Your task to perform on an android device: choose inbox layout in the gmail app Image 0: 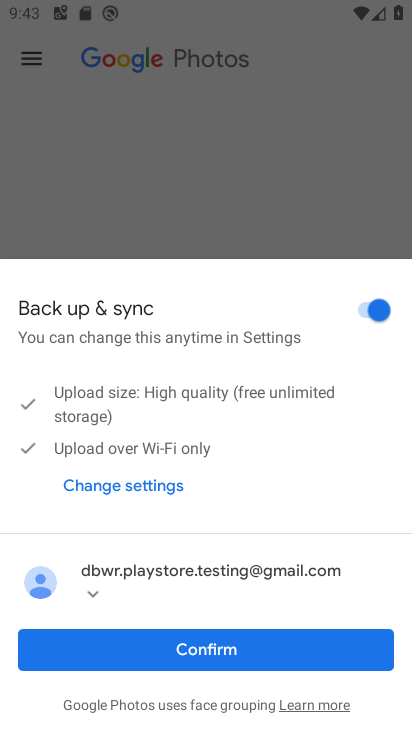
Step 0: press home button
Your task to perform on an android device: choose inbox layout in the gmail app Image 1: 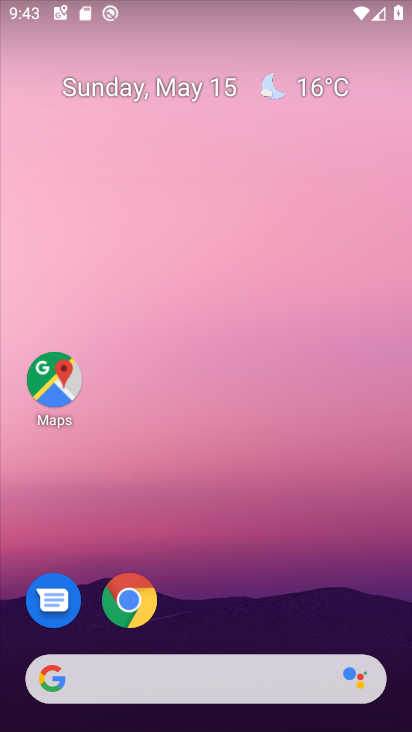
Step 1: drag from (206, 639) to (304, 56)
Your task to perform on an android device: choose inbox layout in the gmail app Image 2: 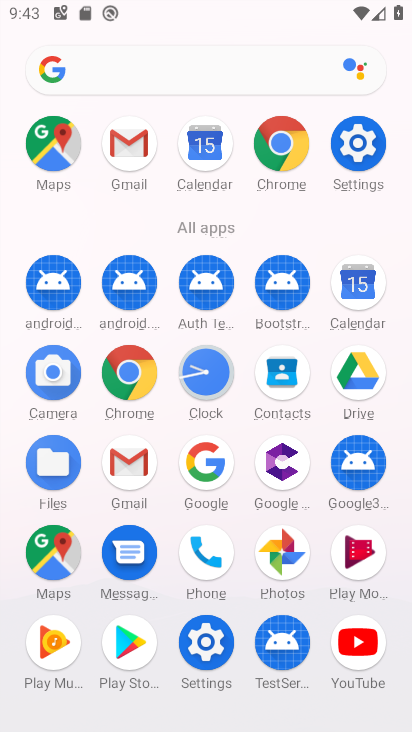
Step 2: click (137, 465)
Your task to perform on an android device: choose inbox layout in the gmail app Image 3: 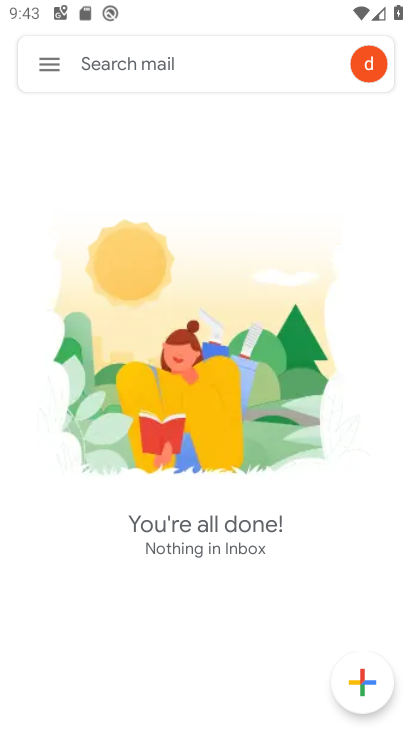
Step 3: click (47, 49)
Your task to perform on an android device: choose inbox layout in the gmail app Image 4: 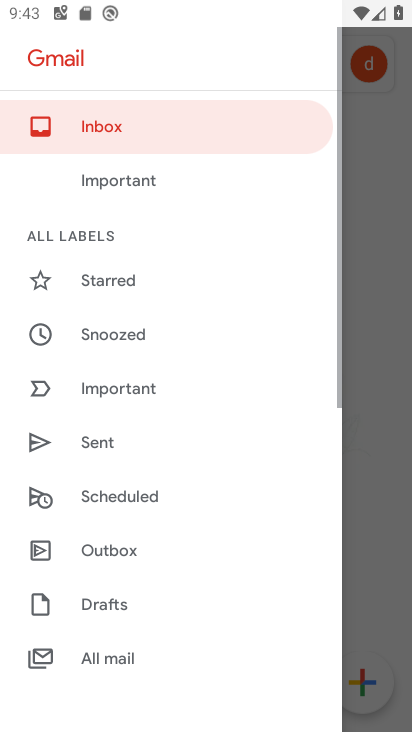
Step 4: drag from (142, 636) to (100, 6)
Your task to perform on an android device: choose inbox layout in the gmail app Image 5: 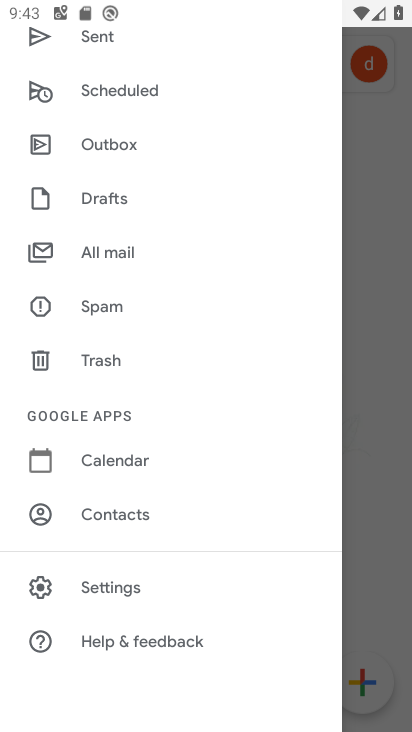
Step 5: click (89, 583)
Your task to perform on an android device: choose inbox layout in the gmail app Image 6: 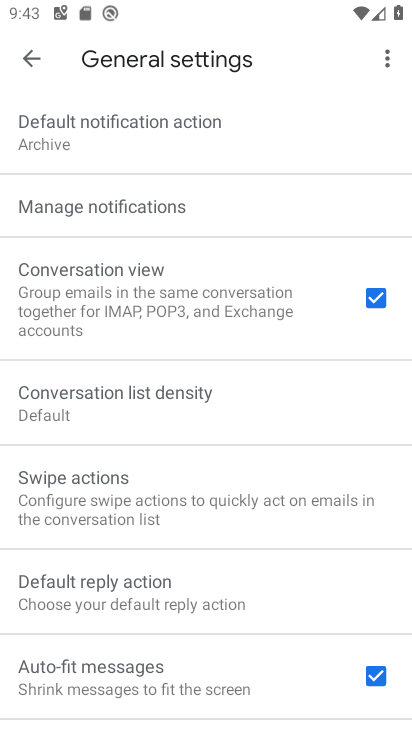
Step 6: click (29, 62)
Your task to perform on an android device: choose inbox layout in the gmail app Image 7: 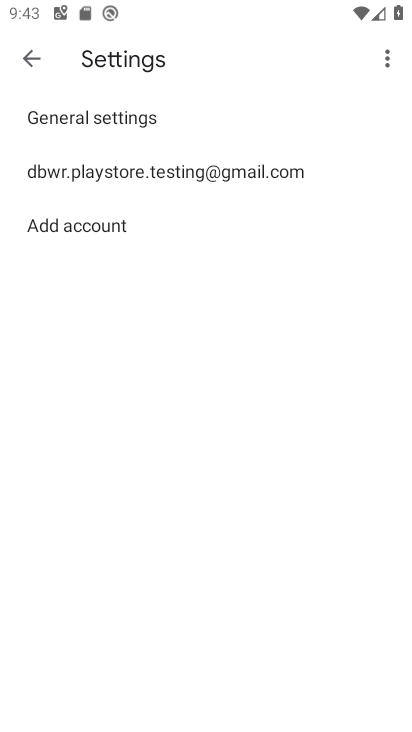
Step 7: click (83, 153)
Your task to perform on an android device: choose inbox layout in the gmail app Image 8: 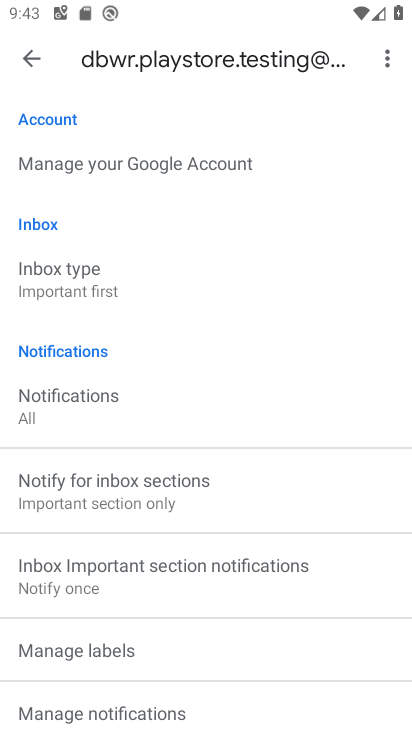
Step 8: click (72, 302)
Your task to perform on an android device: choose inbox layout in the gmail app Image 9: 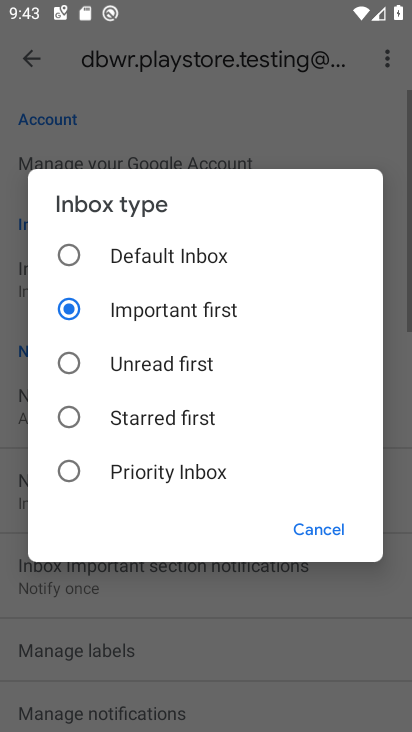
Step 9: click (103, 269)
Your task to perform on an android device: choose inbox layout in the gmail app Image 10: 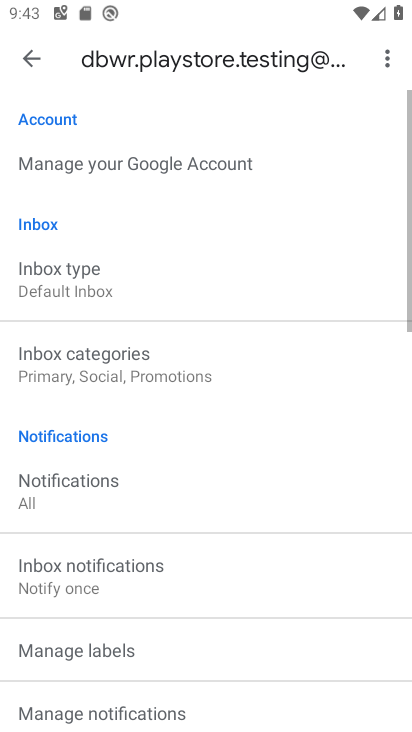
Step 10: click (86, 264)
Your task to perform on an android device: choose inbox layout in the gmail app Image 11: 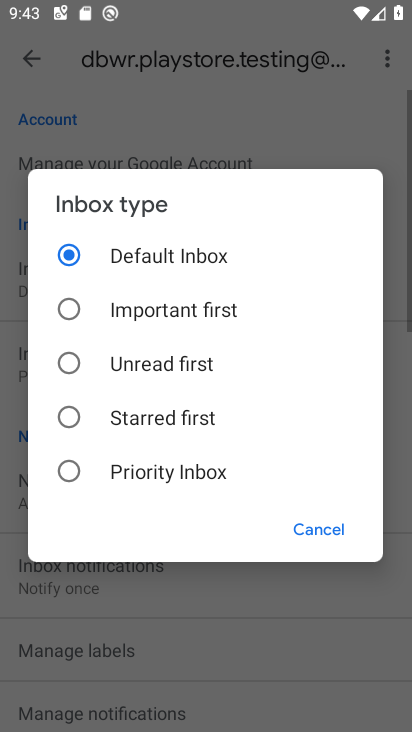
Step 11: click (97, 448)
Your task to perform on an android device: choose inbox layout in the gmail app Image 12: 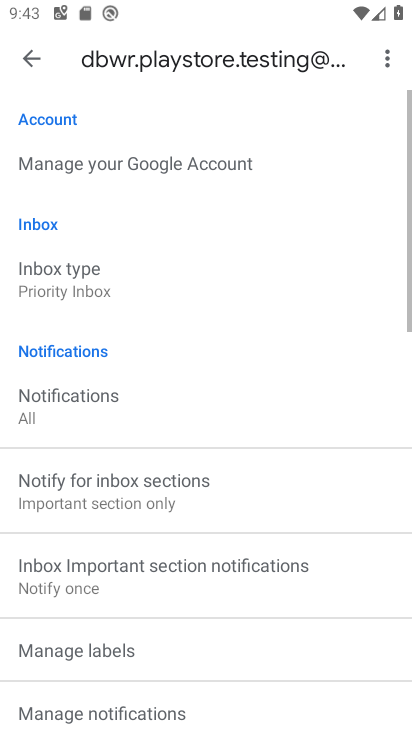
Step 12: click (37, 64)
Your task to perform on an android device: choose inbox layout in the gmail app Image 13: 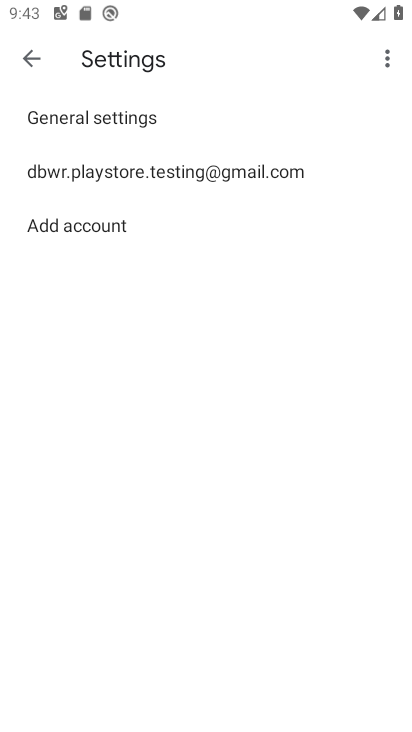
Step 13: click (37, 64)
Your task to perform on an android device: choose inbox layout in the gmail app Image 14: 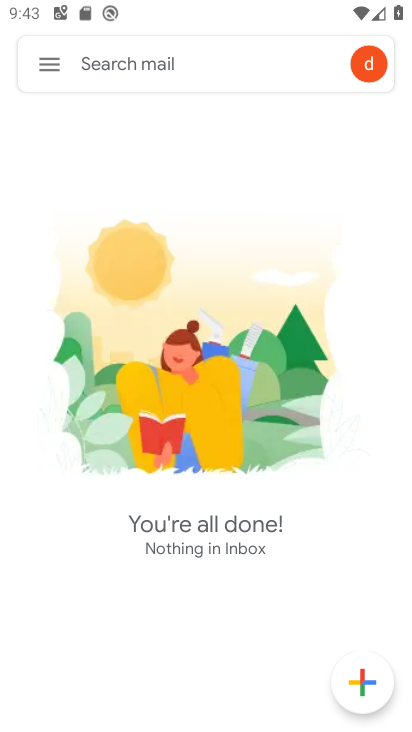
Step 14: task complete